Your task to perform on an android device: Go to network settings Image 0: 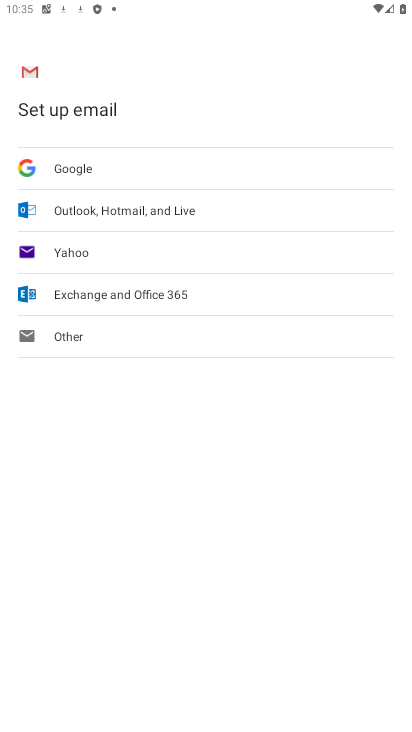
Step 0: press home button
Your task to perform on an android device: Go to network settings Image 1: 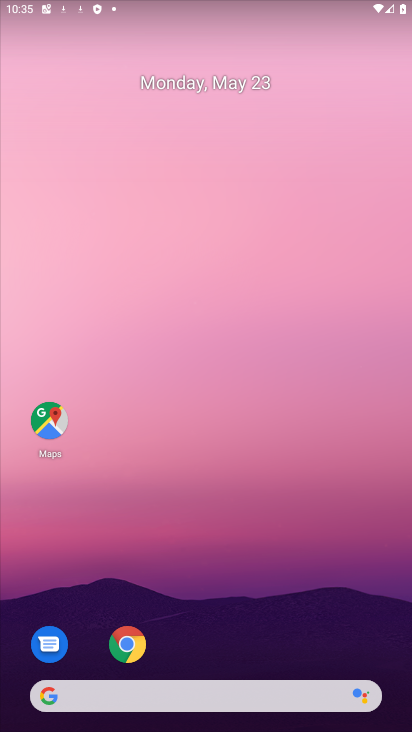
Step 1: drag from (267, 720) to (231, 130)
Your task to perform on an android device: Go to network settings Image 2: 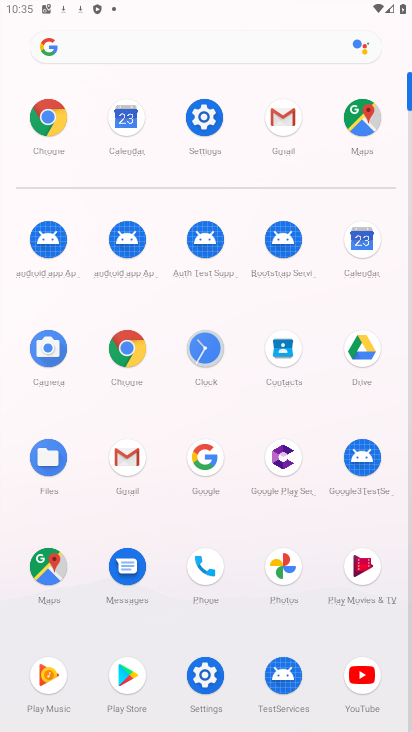
Step 2: click (208, 125)
Your task to perform on an android device: Go to network settings Image 3: 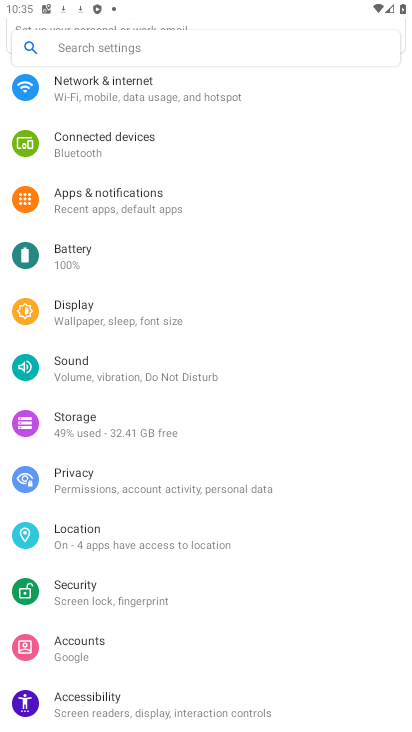
Step 3: click (136, 91)
Your task to perform on an android device: Go to network settings Image 4: 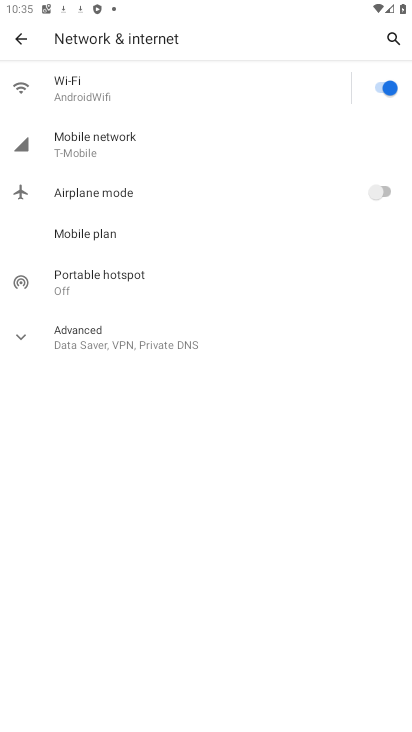
Step 4: task complete